Your task to perform on an android device: change alarm snooze length Image 0: 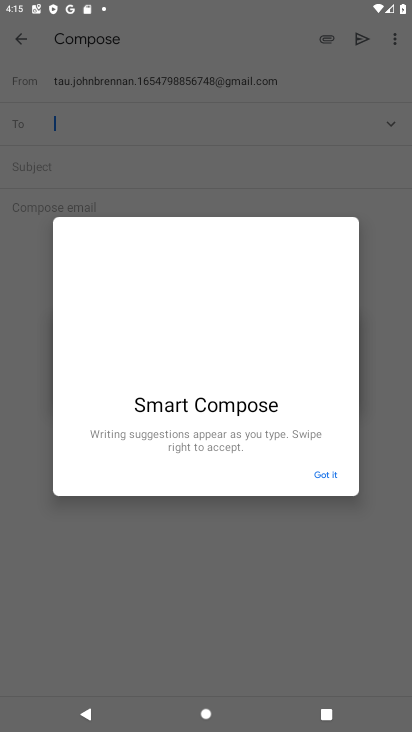
Step 0: press home button
Your task to perform on an android device: change alarm snooze length Image 1: 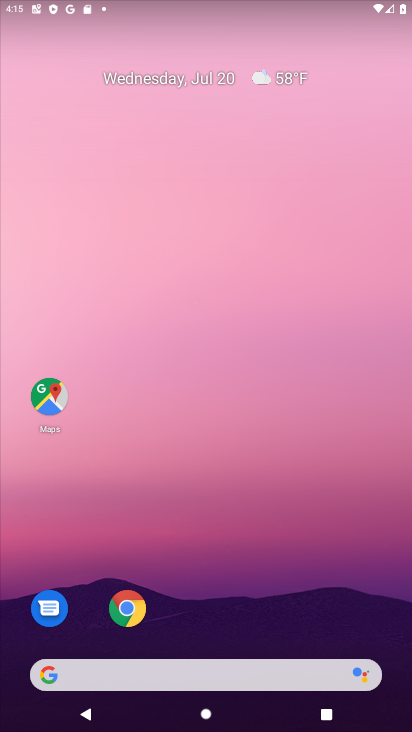
Step 1: drag from (216, 545) to (217, 120)
Your task to perform on an android device: change alarm snooze length Image 2: 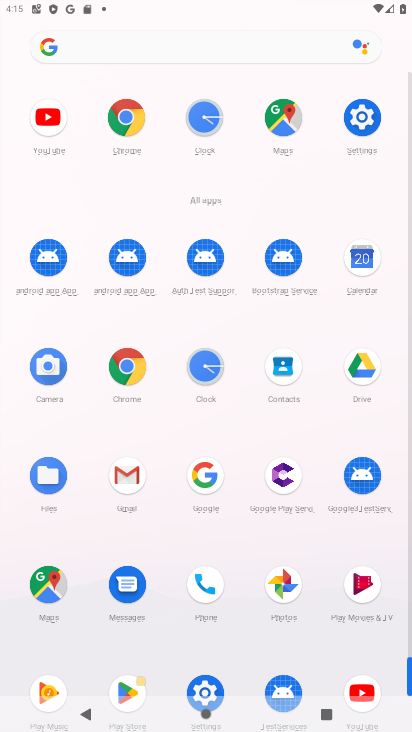
Step 2: click (133, 378)
Your task to perform on an android device: change alarm snooze length Image 3: 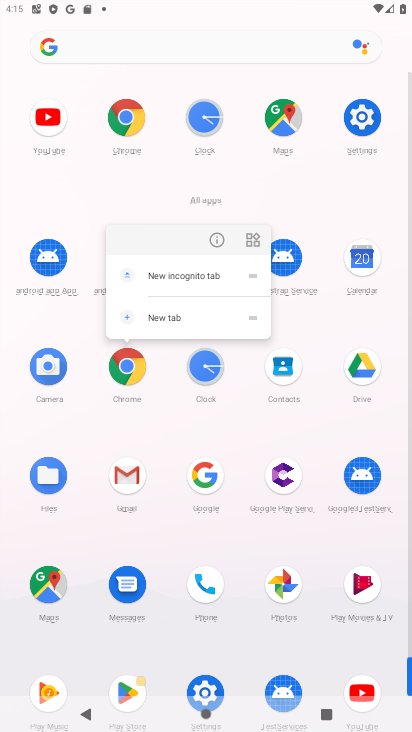
Step 3: click (208, 367)
Your task to perform on an android device: change alarm snooze length Image 4: 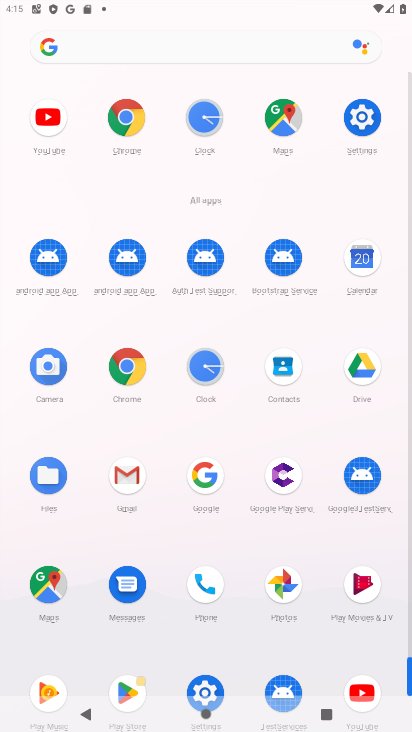
Step 4: click (208, 373)
Your task to perform on an android device: change alarm snooze length Image 5: 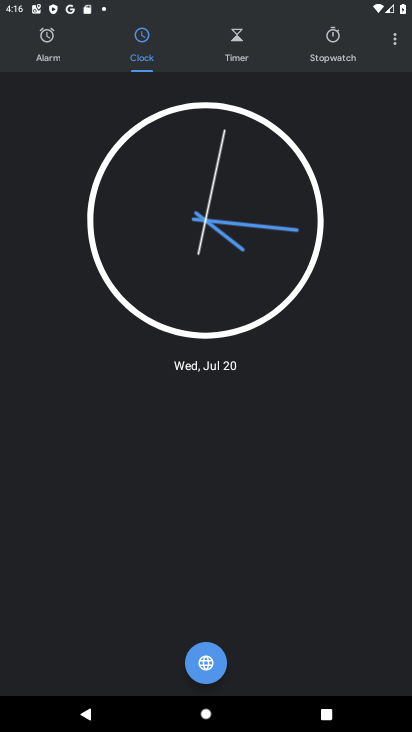
Step 5: click (385, 49)
Your task to perform on an android device: change alarm snooze length Image 6: 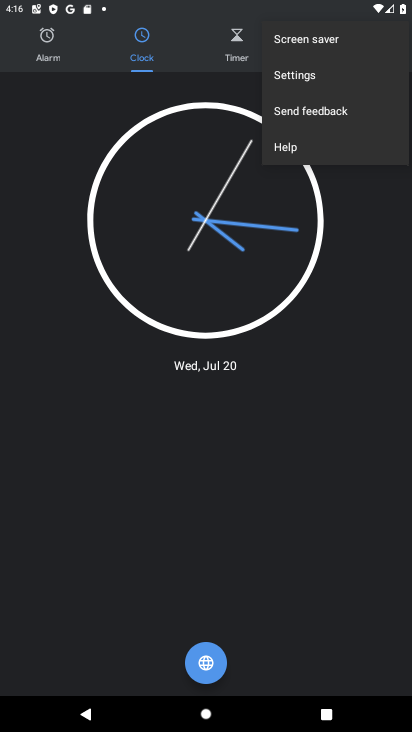
Step 6: click (303, 78)
Your task to perform on an android device: change alarm snooze length Image 7: 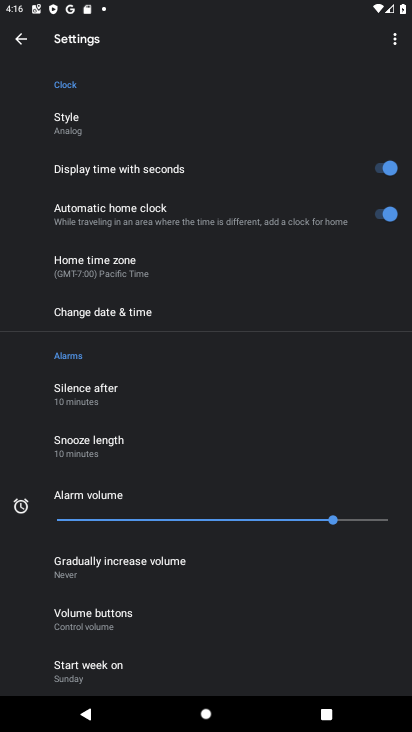
Step 7: drag from (144, 525) to (140, 285)
Your task to perform on an android device: change alarm snooze length Image 8: 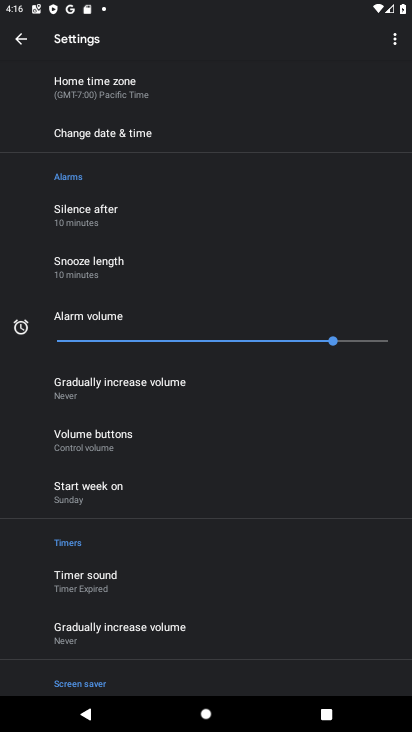
Step 8: drag from (119, 572) to (133, 334)
Your task to perform on an android device: change alarm snooze length Image 9: 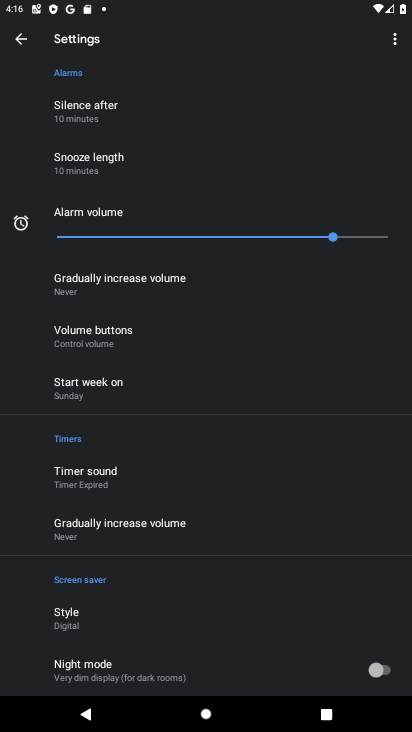
Step 9: drag from (106, 627) to (140, 328)
Your task to perform on an android device: change alarm snooze length Image 10: 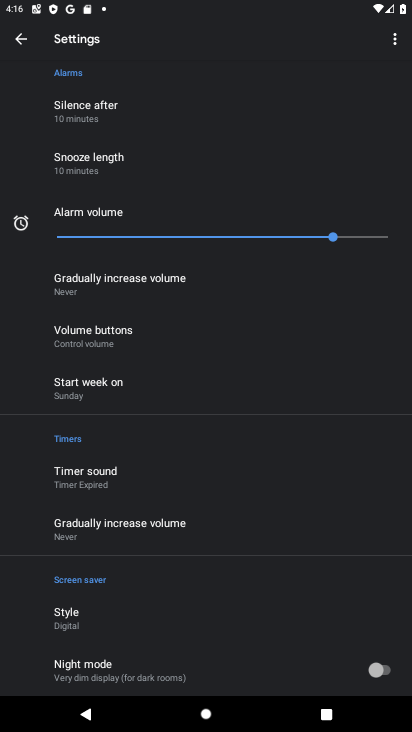
Step 10: click (128, 166)
Your task to perform on an android device: change alarm snooze length Image 11: 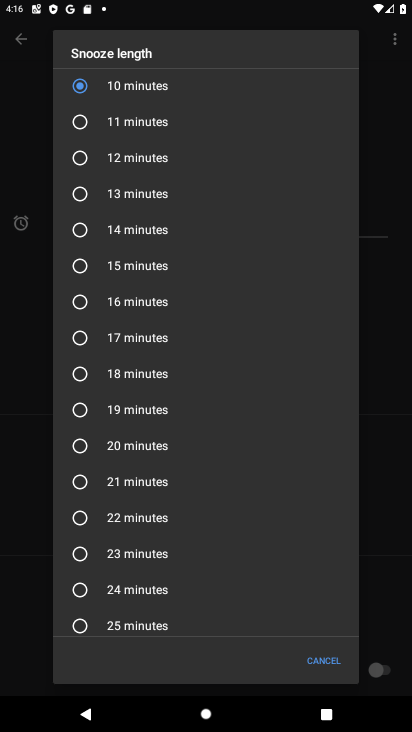
Step 11: click (106, 242)
Your task to perform on an android device: change alarm snooze length Image 12: 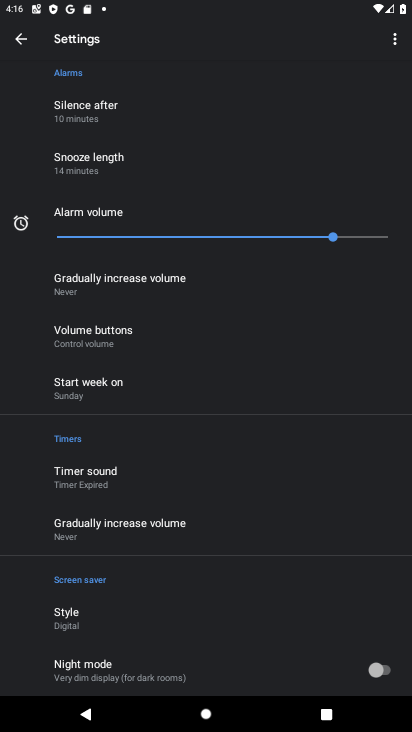
Step 12: task complete